Your task to perform on an android device: turn on translation in the chrome app Image 0: 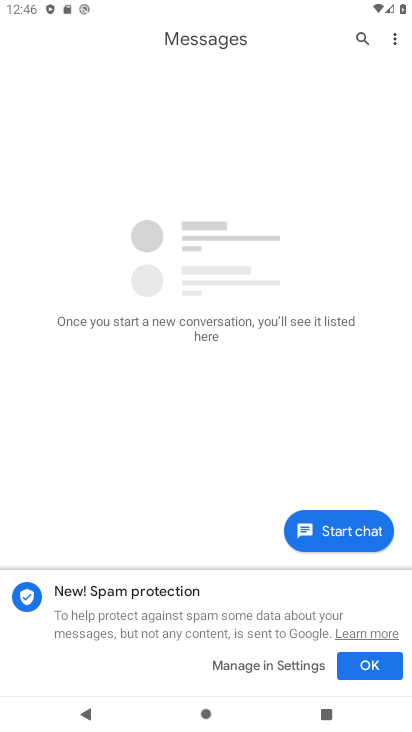
Step 0: press home button
Your task to perform on an android device: turn on translation in the chrome app Image 1: 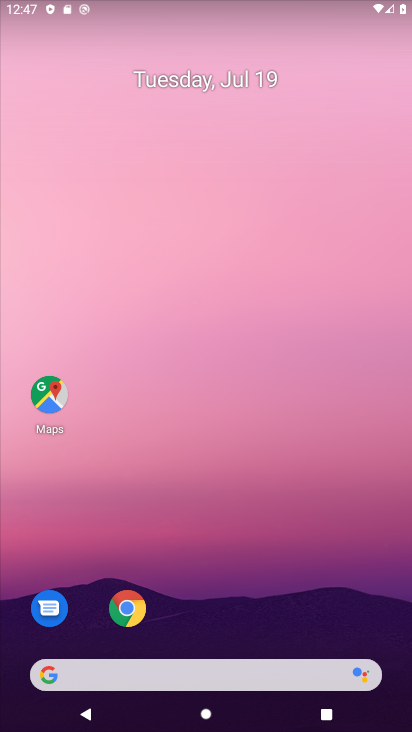
Step 1: drag from (248, 642) to (264, 63)
Your task to perform on an android device: turn on translation in the chrome app Image 2: 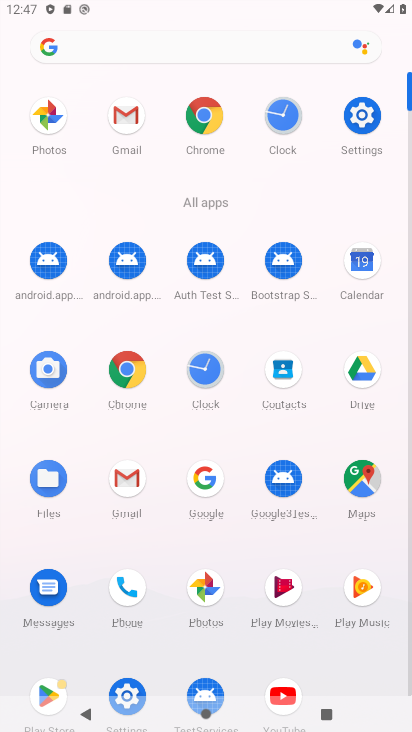
Step 2: click (208, 119)
Your task to perform on an android device: turn on translation in the chrome app Image 3: 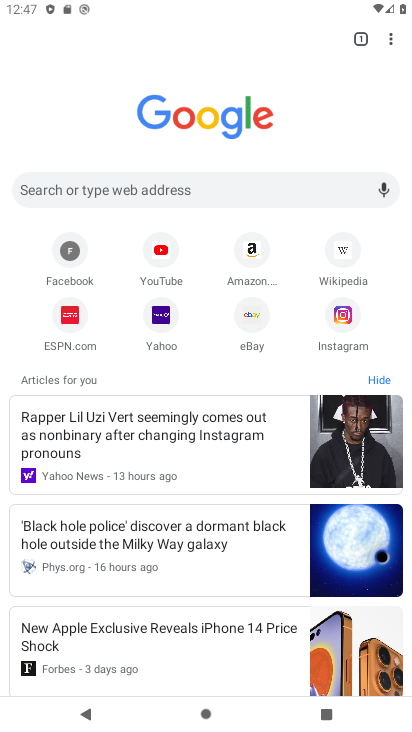
Step 3: drag from (392, 37) to (262, 325)
Your task to perform on an android device: turn on translation in the chrome app Image 4: 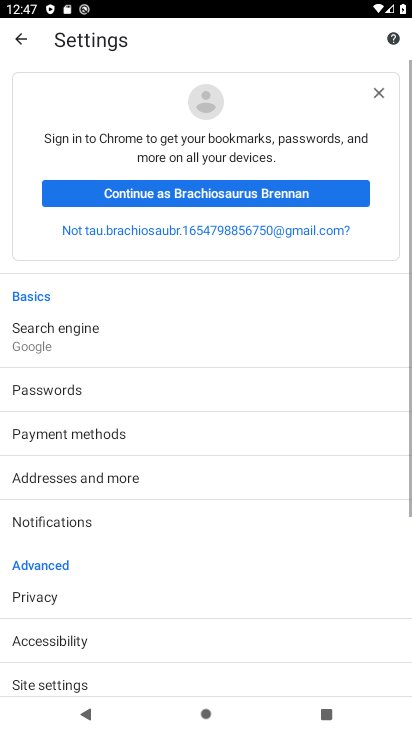
Step 4: drag from (174, 657) to (172, 172)
Your task to perform on an android device: turn on translation in the chrome app Image 5: 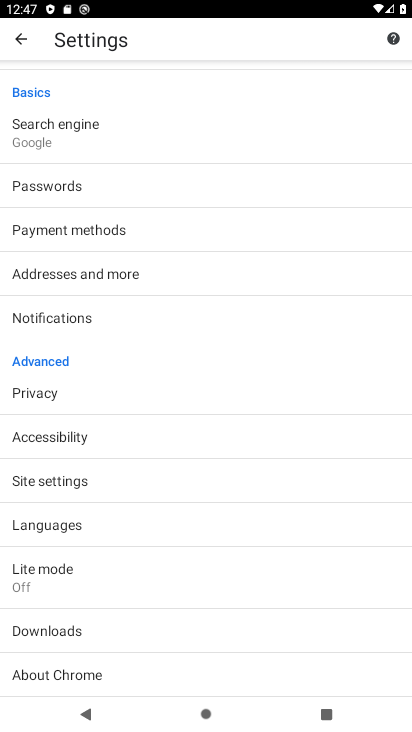
Step 5: click (86, 534)
Your task to perform on an android device: turn on translation in the chrome app Image 6: 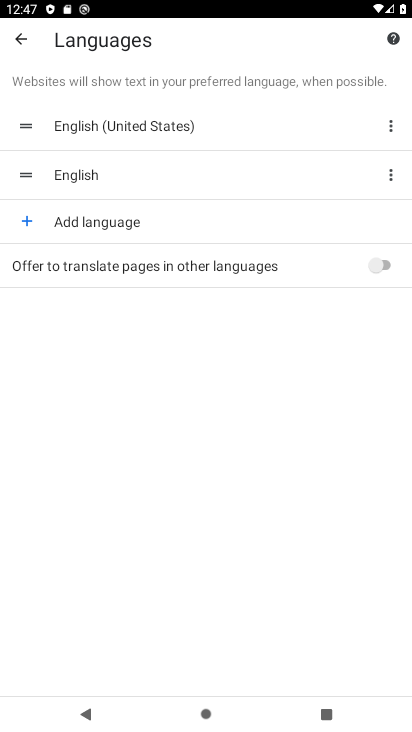
Step 6: click (378, 270)
Your task to perform on an android device: turn on translation in the chrome app Image 7: 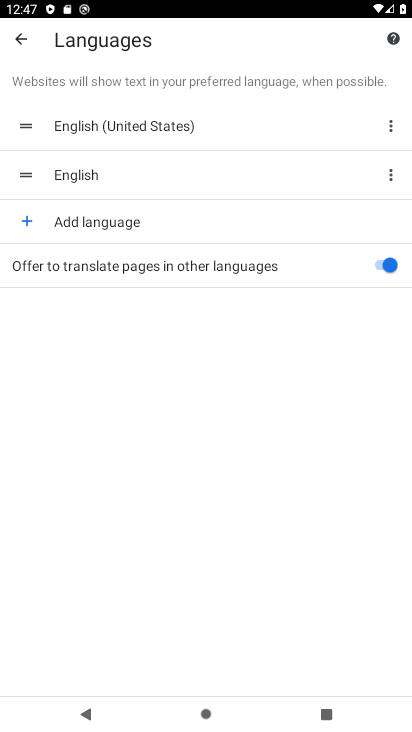
Step 7: task complete